Your task to perform on an android device: Go to location settings Image 0: 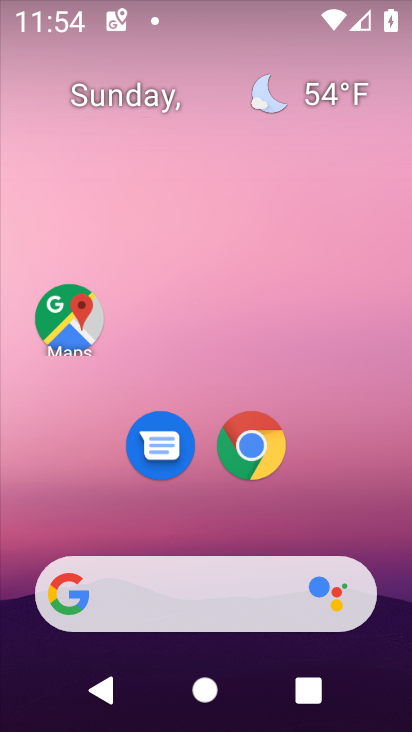
Step 0: drag from (390, 501) to (406, 41)
Your task to perform on an android device: Go to location settings Image 1: 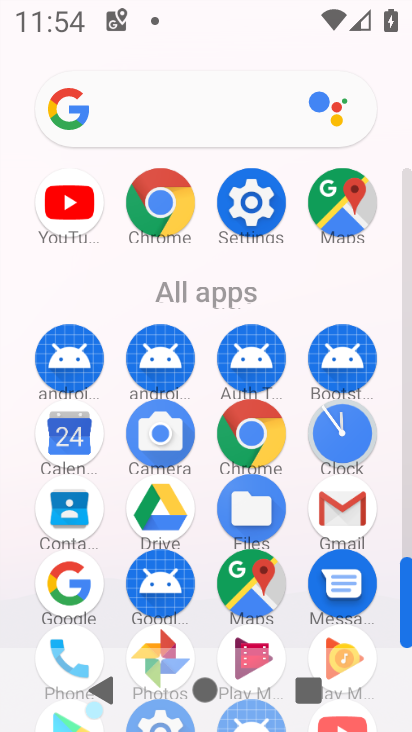
Step 1: click (254, 207)
Your task to perform on an android device: Go to location settings Image 2: 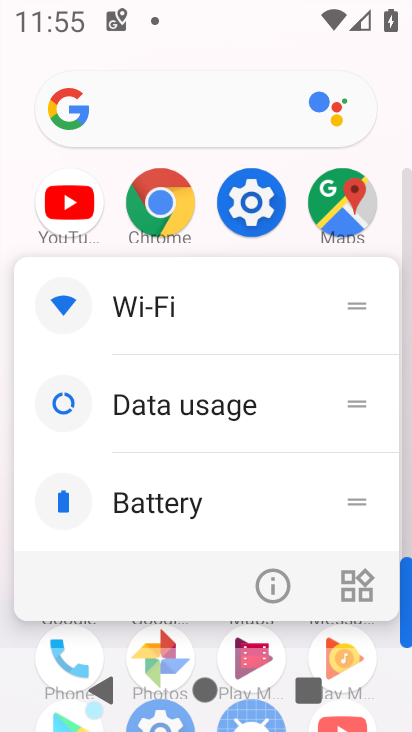
Step 2: drag from (391, 158) to (378, 58)
Your task to perform on an android device: Go to location settings Image 3: 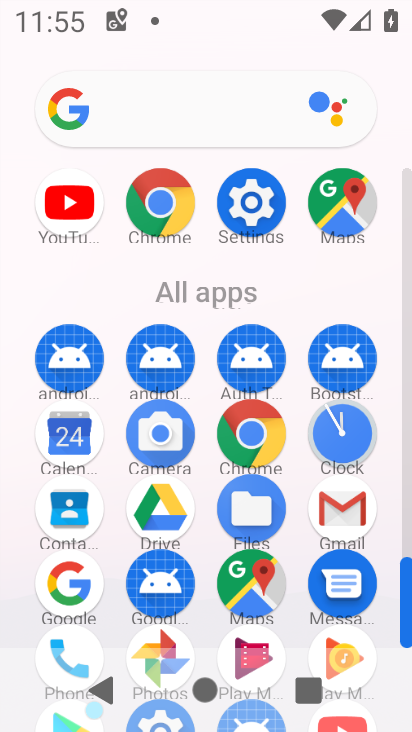
Step 3: drag from (385, 621) to (385, 347)
Your task to perform on an android device: Go to location settings Image 4: 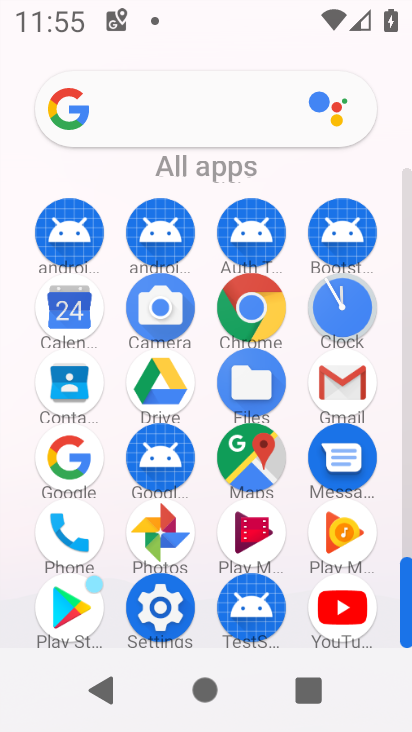
Step 4: click (140, 640)
Your task to perform on an android device: Go to location settings Image 5: 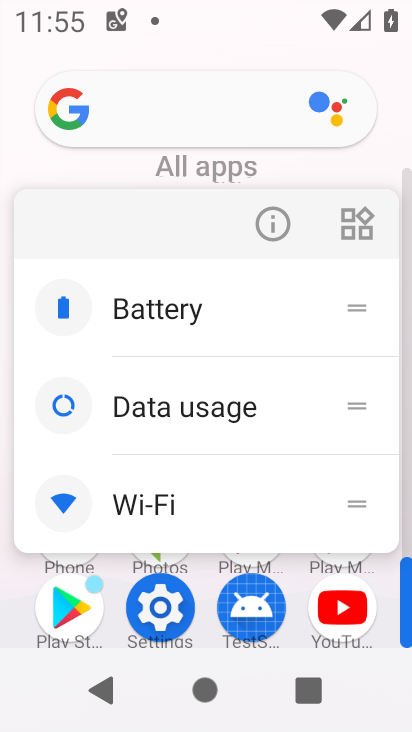
Step 5: click (163, 599)
Your task to perform on an android device: Go to location settings Image 6: 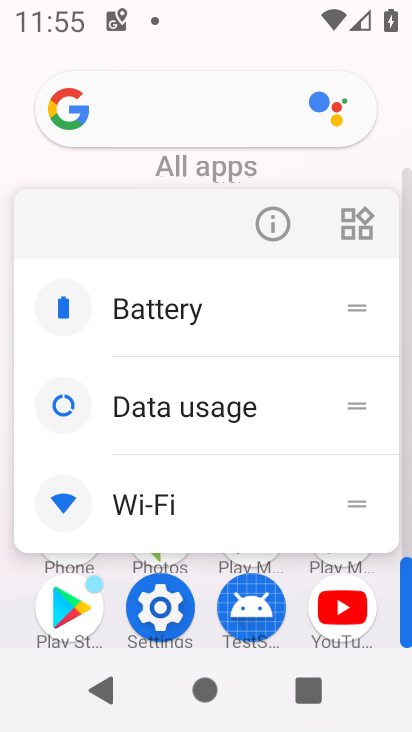
Step 6: click (159, 605)
Your task to perform on an android device: Go to location settings Image 7: 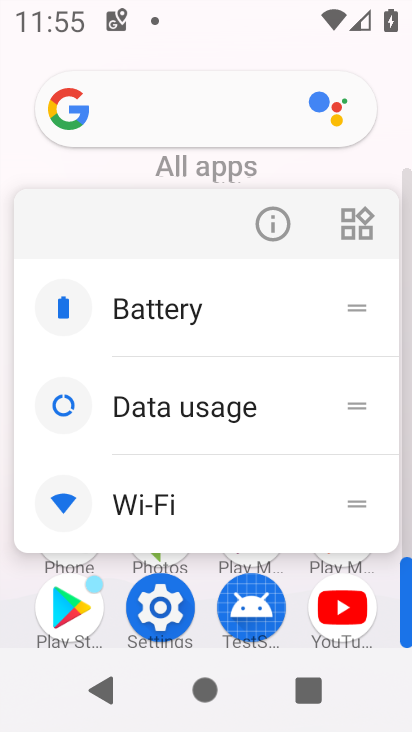
Step 7: click (173, 632)
Your task to perform on an android device: Go to location settings Image 8: 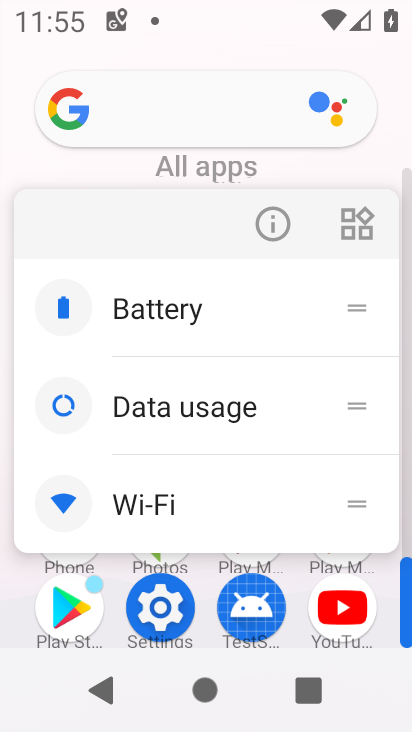
Step 8: click (162, 637)
Your task to perform on an android device: Go to location settings Image 9: 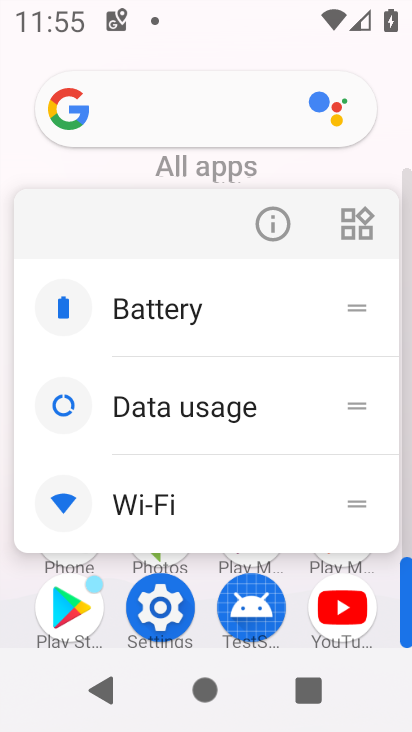
Step 9: click (151, 644)
Your task to perform on an android device: Go to location settings Image 10: 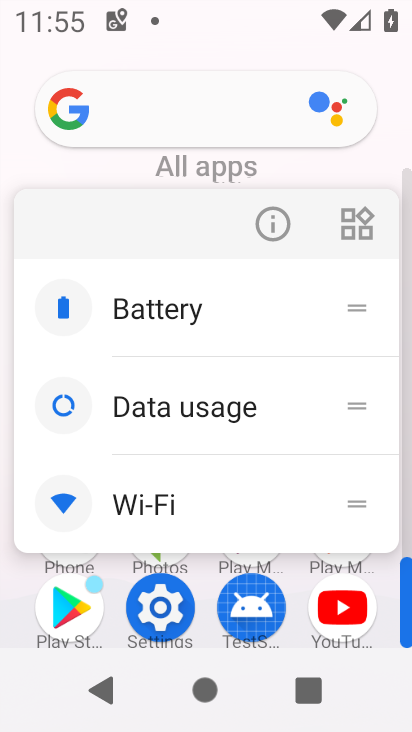
Step 10: click (156, 636)
Your task to perform on an android device: Go to location settings Image 11: 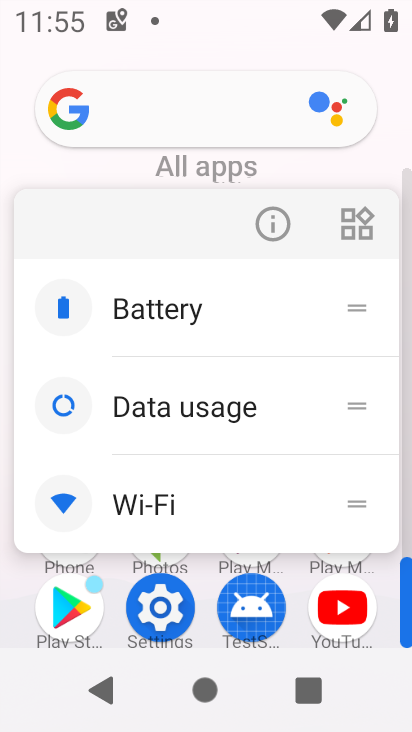
Step 11: click (155, 632)
Your task to perform on an android device: Go to location settings Image 12: 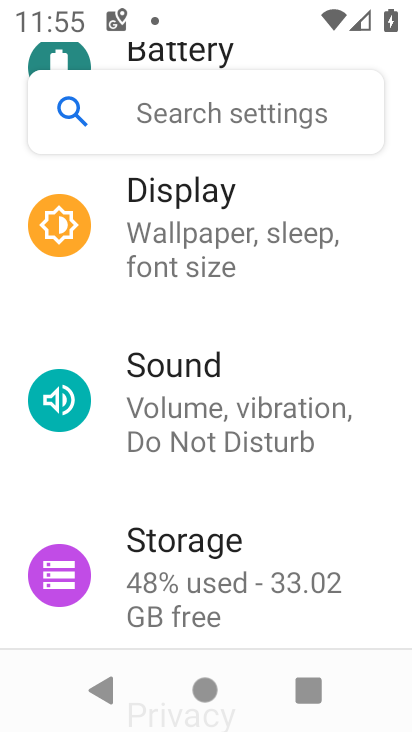
Step 12: drag from (315, 608) to (337, 251)
Your task to perform on an android device: Go to location settings Image 13: 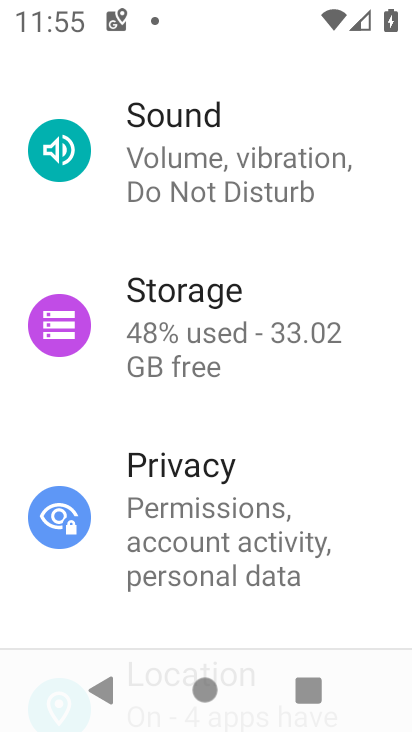
Step 13: drag from (237, 584) to (288, 211)
Your task to perform on an android device: Go to location settings Image 14: 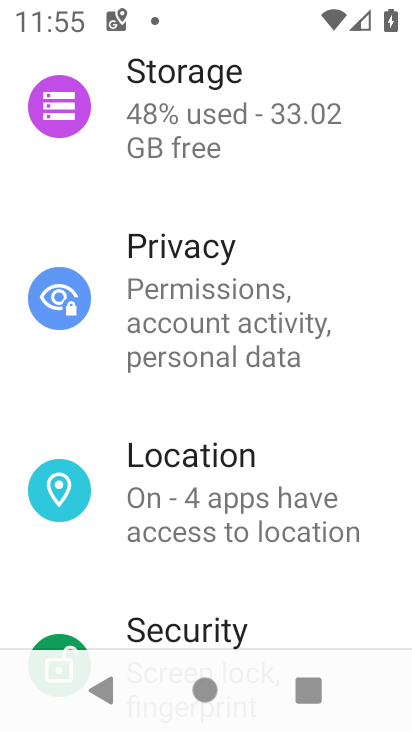
Step 14: click (223, 477)
Your task to perform on an android device: Go to location settings Image 15: 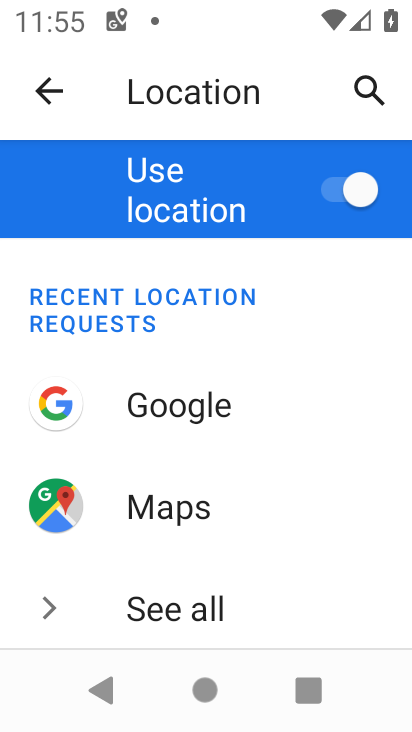
Step 15: drag from (277, 598) to (302, 276)
Your task to perform on an android device: Go to location settings Image 16: 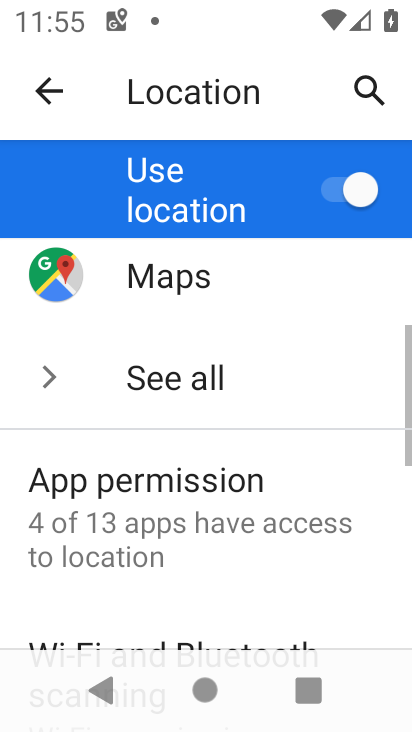
Step 16: drag from (362, 592) to (310, 308)
Your task to perform on an android device: Go to location settings Image 17: 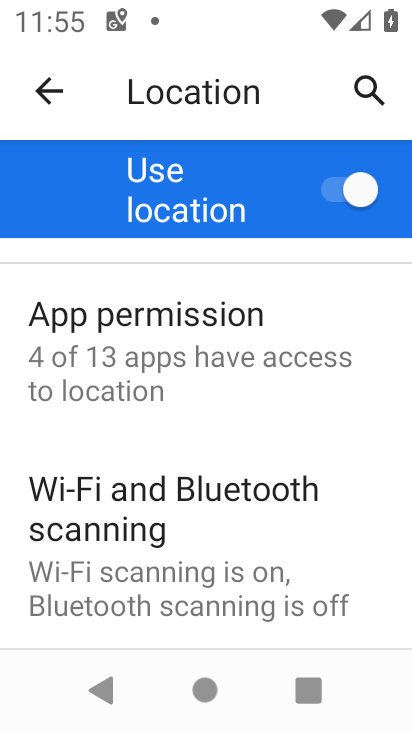
Step 17: drag from (364, 607) to (359, 326)
Your task to perform on an android device: Go to location settings Image 18: 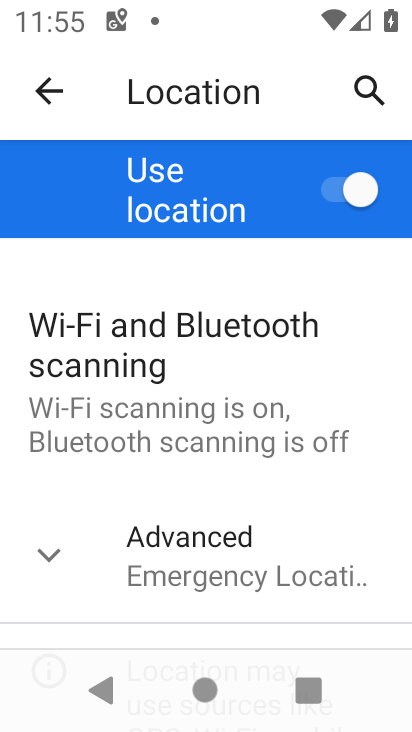
Step 18: drag from (383, 602) to (393, 334)
Your task to perform on an android device: Go to location settings Image 19: 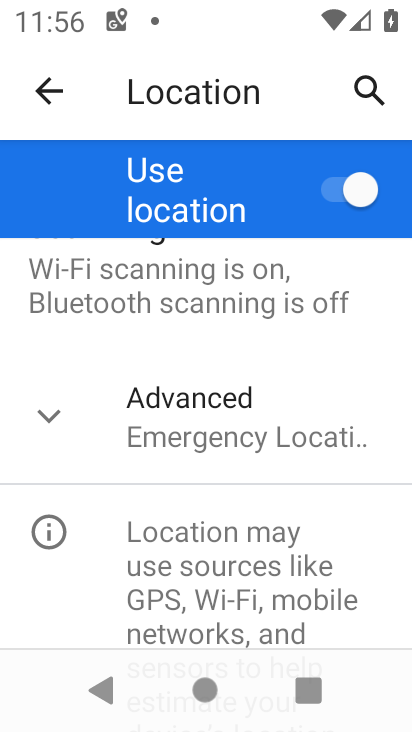
Step 19: click (203, 423)
Your task to perform on an android device: Go to location settings Image 20: 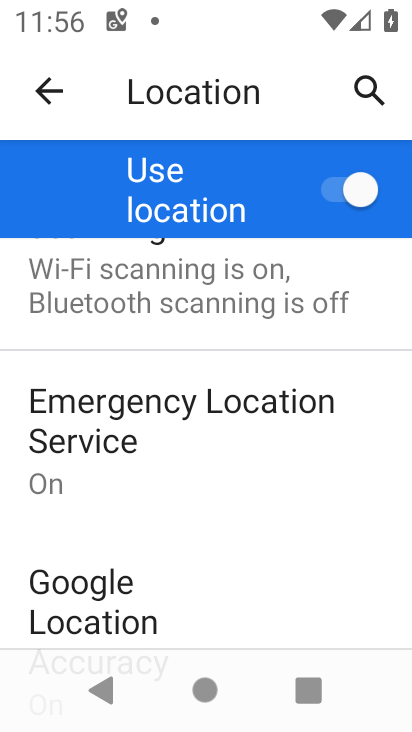
Step 20: click (101, 589)
Your task to perform on an android device: Go to location settings Image 21: 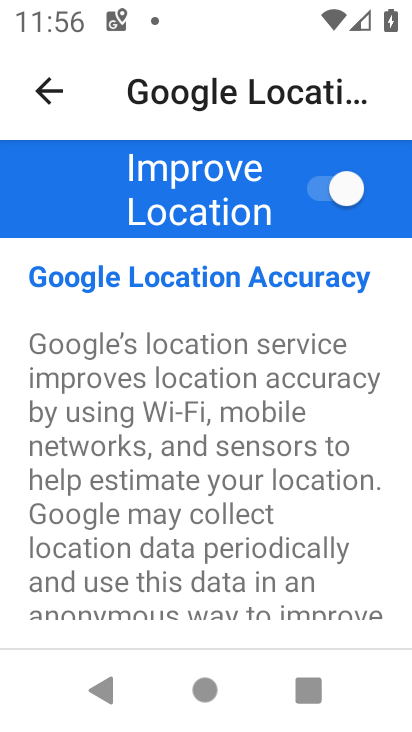
Step 21: task complete